Your task to perform on an android device: open a new tab in the chrome app Image 0: 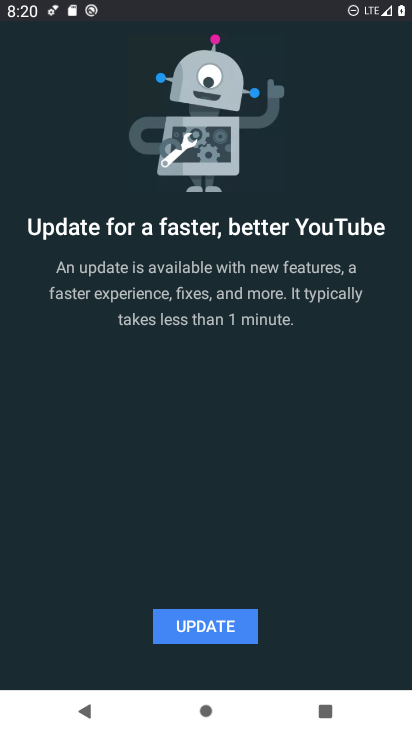
Step 0: press home button
Your task to perform on an android device: open a new tab in the chrome app Image 1: 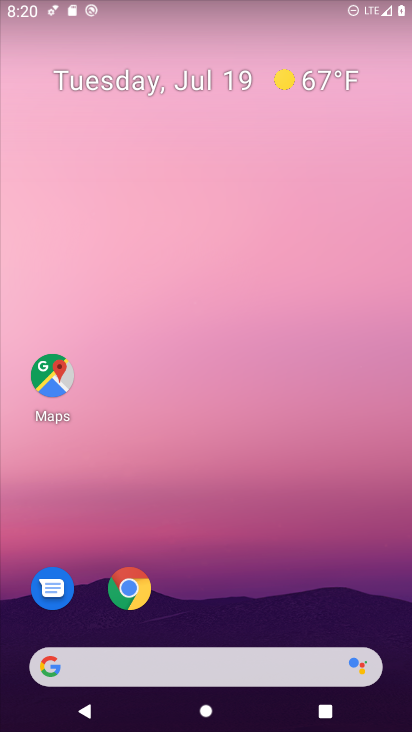
Step 1: drag from (361, 557) to (349, 182)
Your task to perform on an android device: open a new tab in the chrome app Image 2: 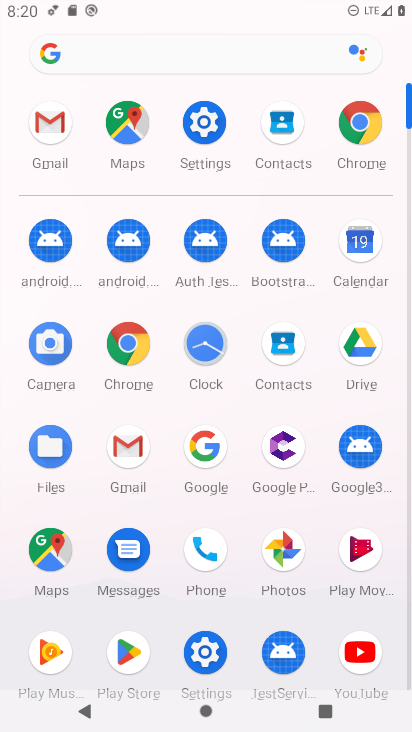
Step 2: click (141, 348)
Your task to perform on an android device: open a new tab in the chrome app Image 3: 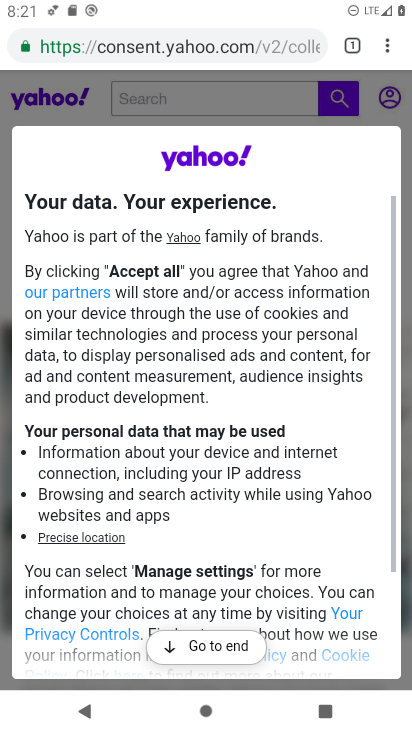
Step 3: click (384, 49)
Your task to perform on an android device: open a new tab in the chrome app Image 4: 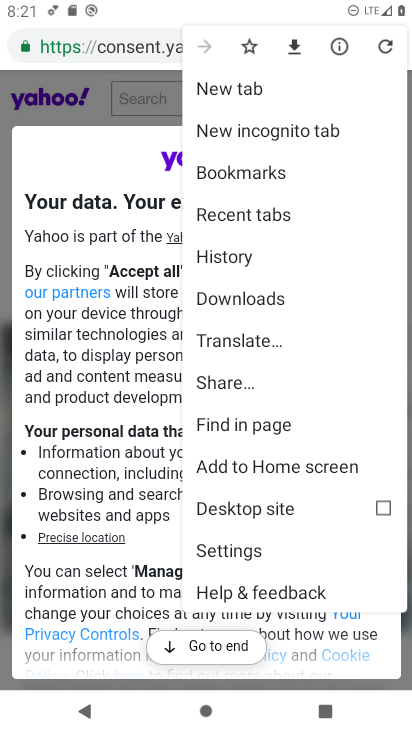
Step 4: click (282, 92)
Your task to perform on an android device: open a new tab in the chrome app Image 5: 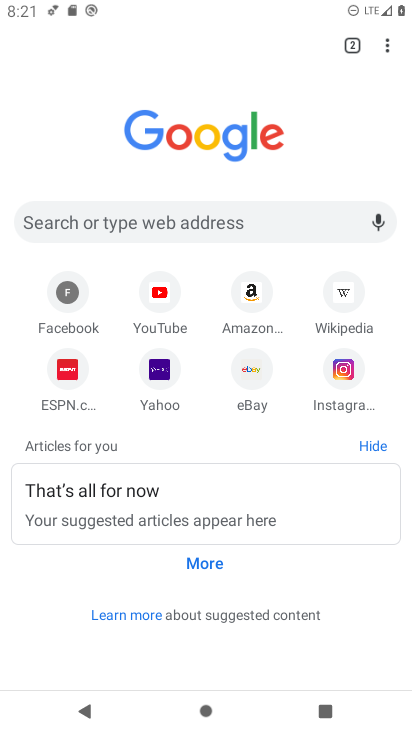
Step 5: task complete